Your task to perform on an android device: toggle airplane mode Image 0: 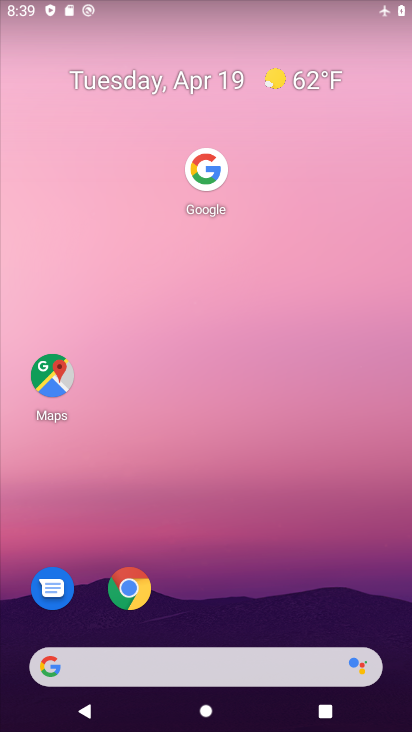
Step 0: drag from (237, 16) to (292, 37)
Your task to perform on an android device: toggle airplane mode Image 1: 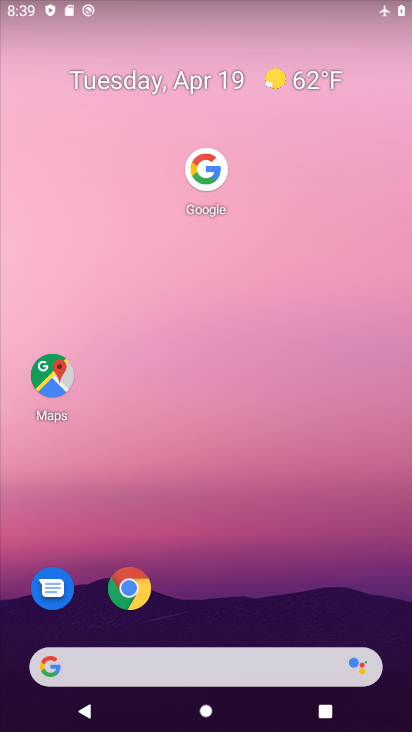
Step 1: drag from (261, 592) to (242, 150)
Your task to perform on an android device: toggle airplane mode Image 2: 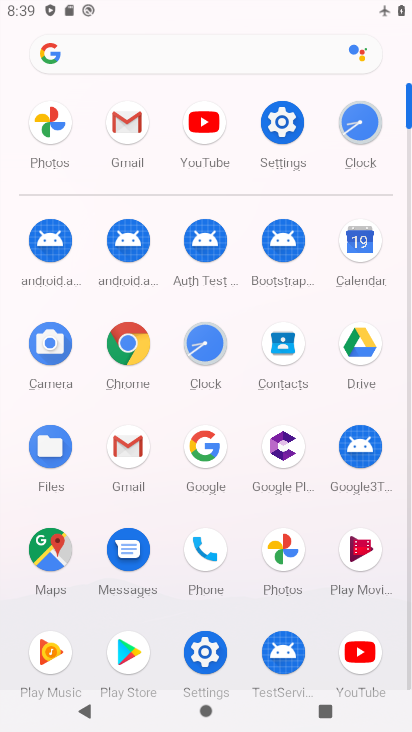
Step 2: click (274, 125)
Your task to perform on an android device: toggle airplane mode Image 3: 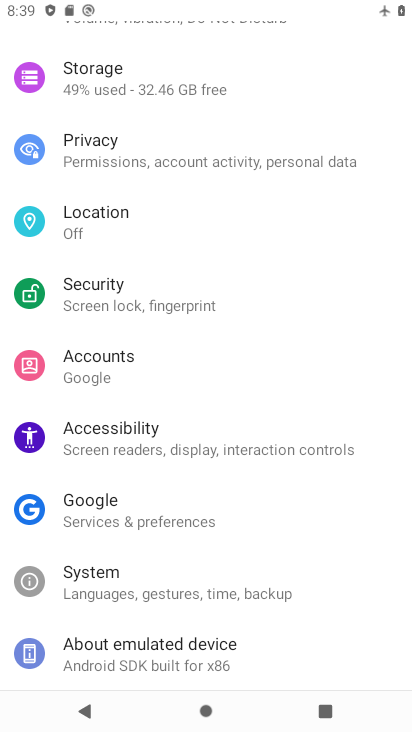
Step 3: drag from (230, 184) to (238, 629)
Your task to perform on an android device: toggle airplane mode Image 4: 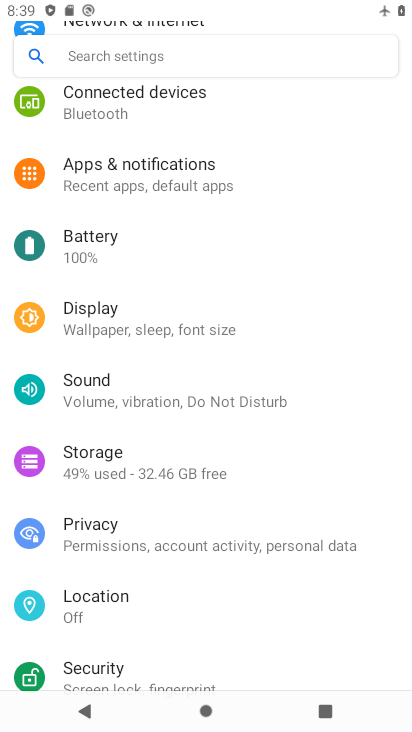
Step 4: drag from (233, 136) to (235, 598)
Your task to perform on an android device: toggle airplane mode Image 5: 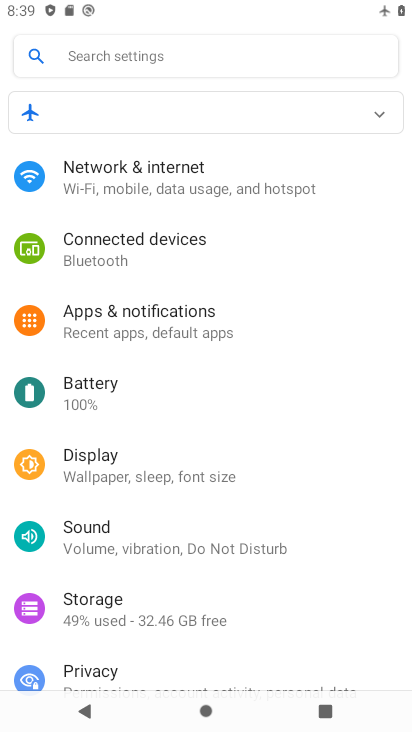
Step 5: click (123, 168)
Your task to perform on an android device: toggle airplane mode Image 6: 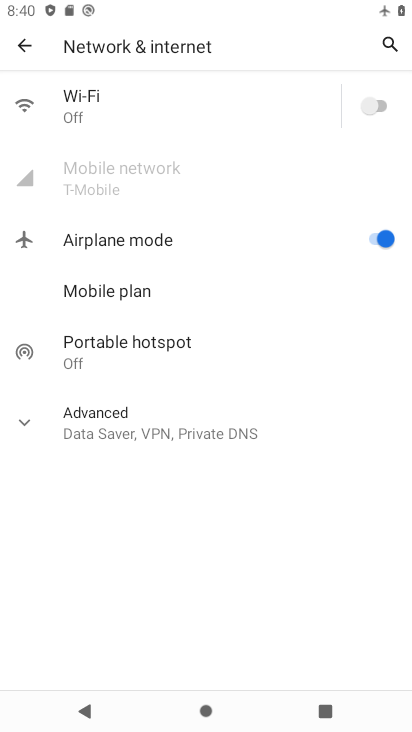
Step 6: click (382, 234)
Your task to perform on an android device: toggle airplane mode Image 7: 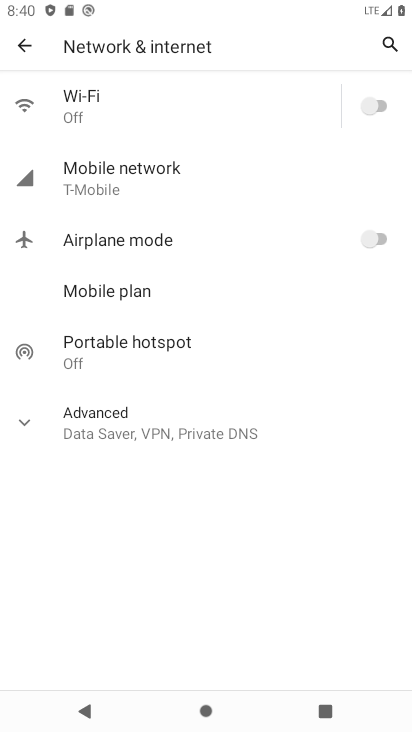
Step 7: task complete